Your task to perform on an android device: stop showing notifications on the lock screen Image 0: 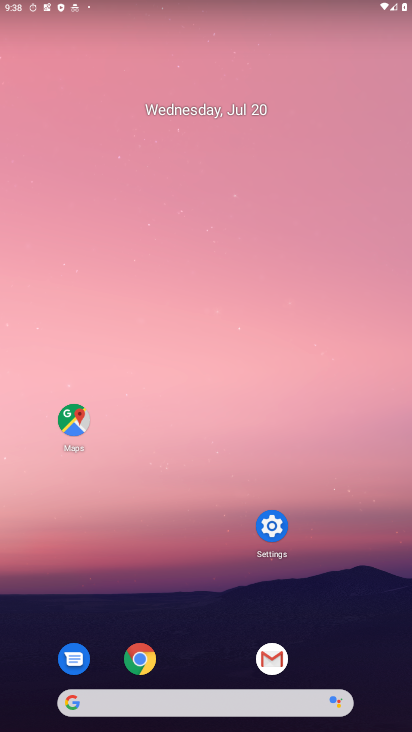
Step 0: press home button
Your task to perform on an android device: stop showing notifications on the lock screen Image 1: 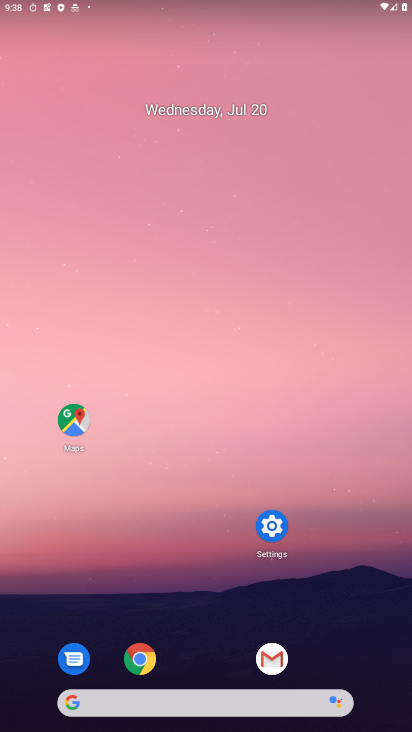
Step 1: click (262, 550)
Your task to perform on an android device: stop showing notifications on the lock screen Image 2: 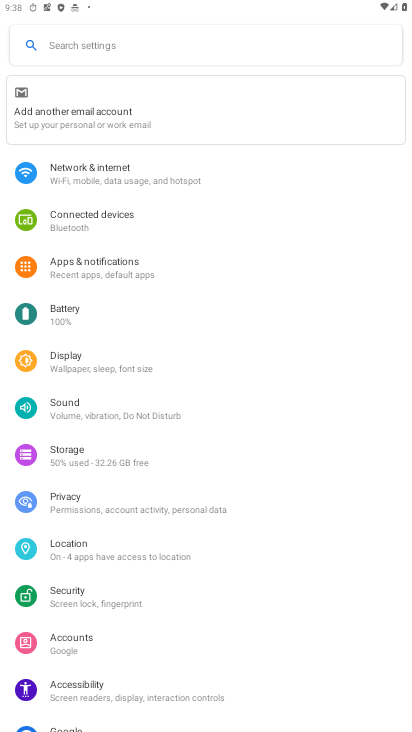
Step 2: click (83, 46)
Your task to perform on an android device: stop showing notifications on the lock screen Image 3: 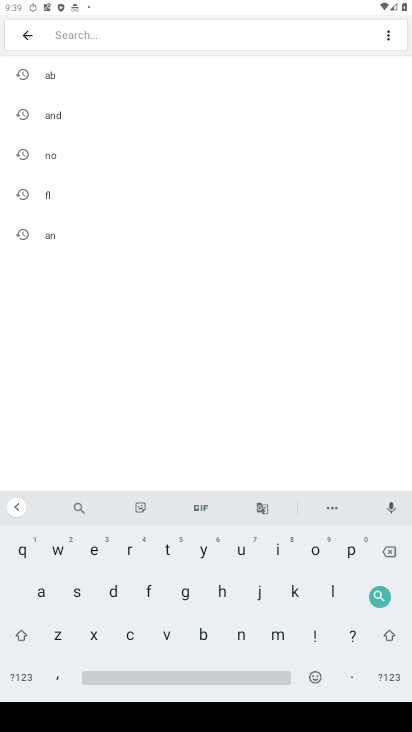
Step 3: click (71, 160)
Your task to perform on an android device: stop showing notifications on the lock screen Image 4: 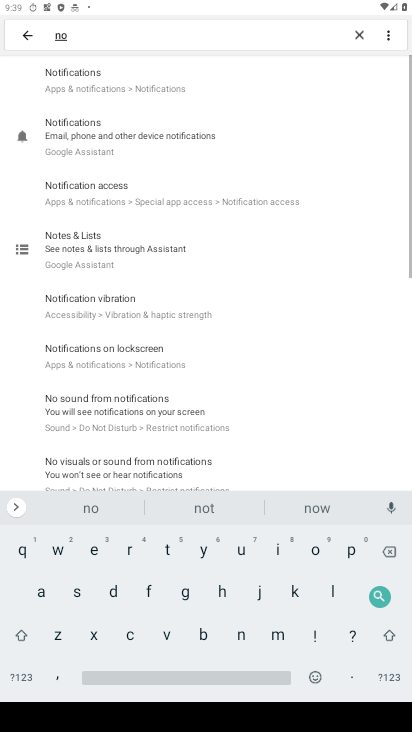
Step 4: click (93, 93)
Your task to perform on an android device: stop showing notifications on the lock screen Image 5: 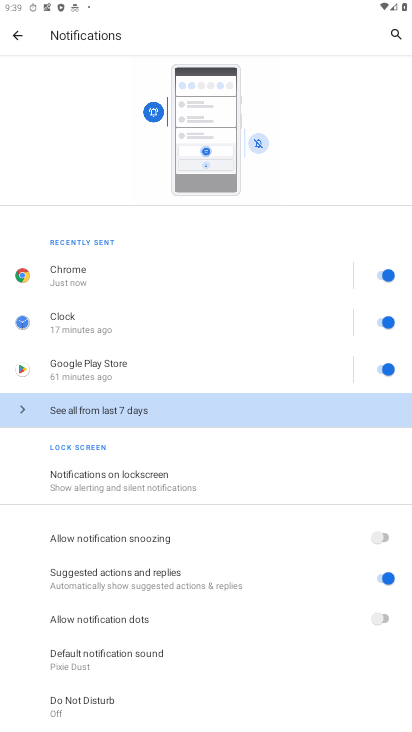
Step 5: click (93, 473)
Your task to perform on an android device: stop showing notifications on the lock screen Image 6: 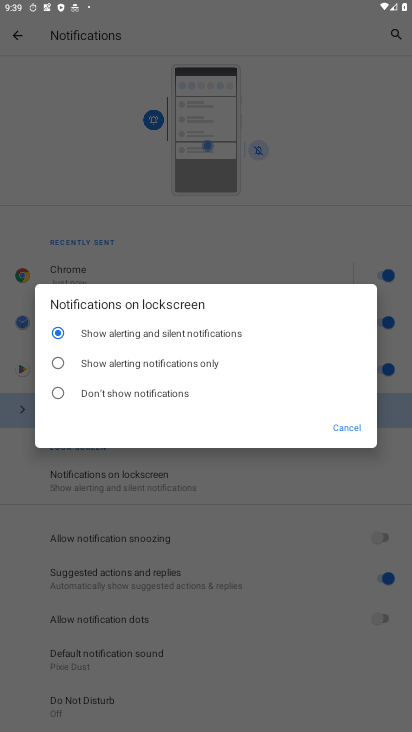
Step 6: click (104, 387)
Your task to perform on an android device: stop showing notifications on the lock screen Image 7: 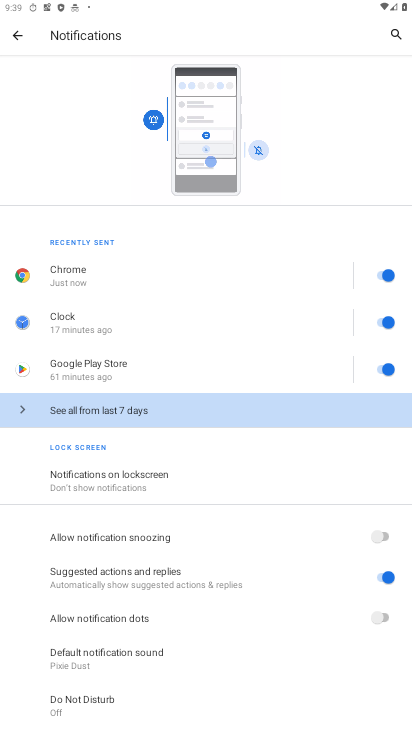
Step 7: click (79, 488)
Your task to perform on an android device: stop showing notifications on the lock screen Image 8: 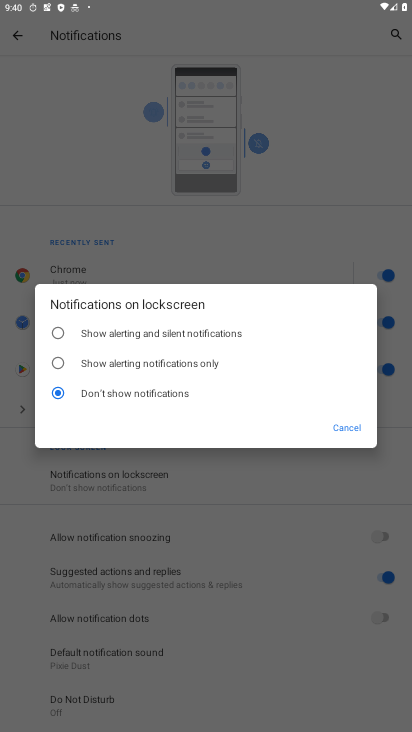
Step 8: task complete